Your task to perform on an android device: change the upload size in google photos Image 0: 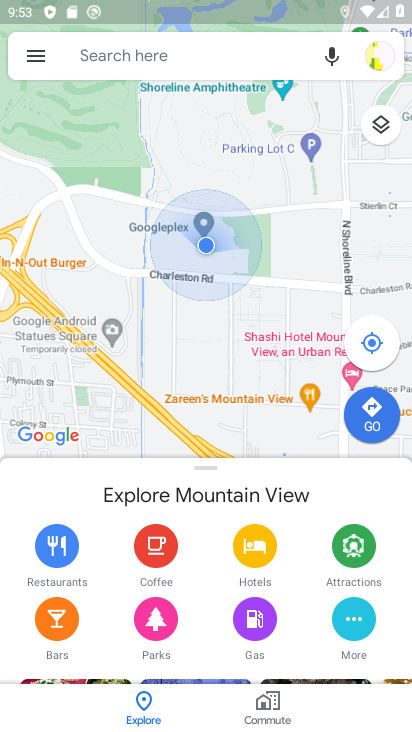
Step 0: press home button
Your task to perform on an android device: change the upload size in google photos Image 1: 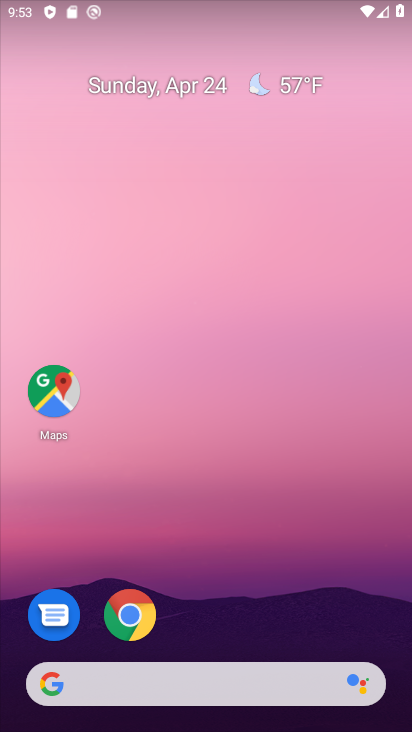
Step 1: drag from (344, 625) to (284, 4)
Your task to perform on an android device: change the upload size in google photos Image 2: 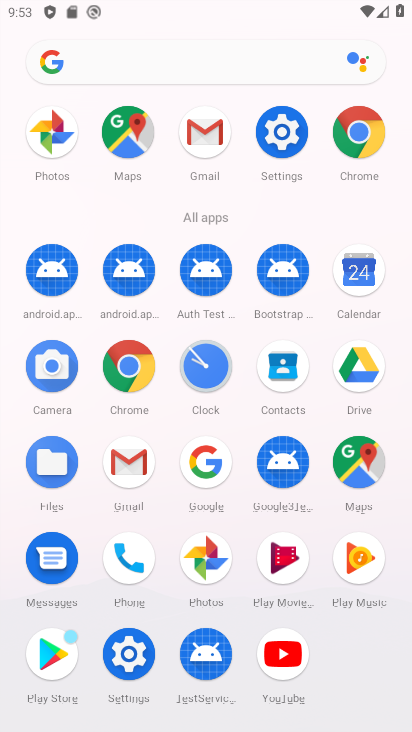
Step 2: click (204, 561)
Your task to perform on an android device: change the upload size in google photos Image 3: 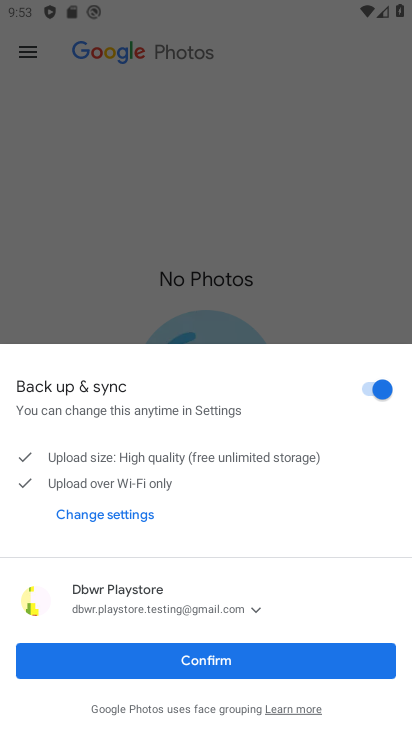
Step 3: click (202, 661)
Your task to perform on an android device: change the upload size in google photos Image 4: 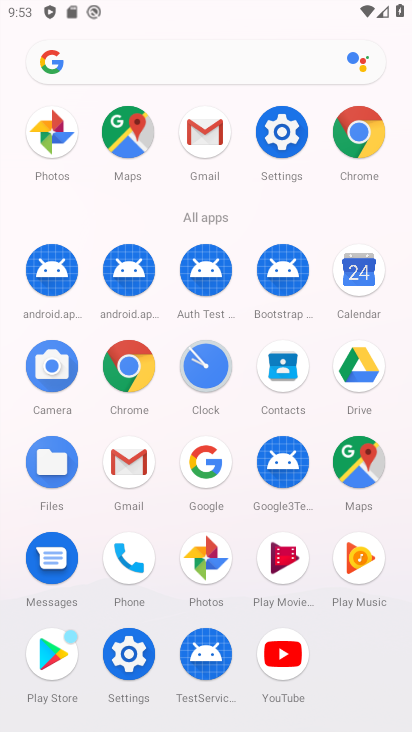
Step 4: click (205, 558)
Your task to perform on an android device: change the upload size in google photos Image 5: 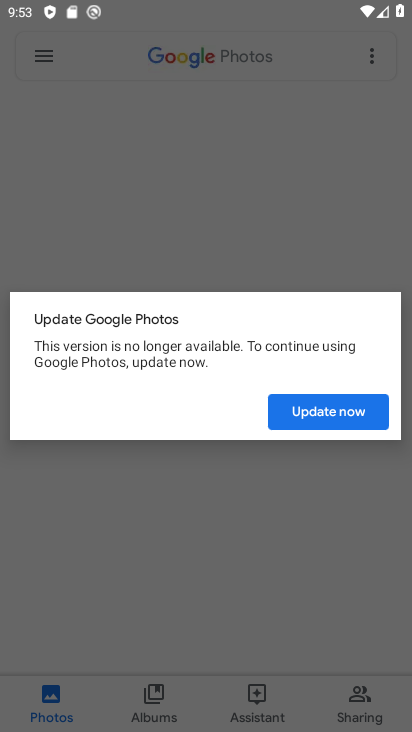
Step 5: click (330, 414)
Your task to perform on an android device: change the upload size in google photos Image 6: 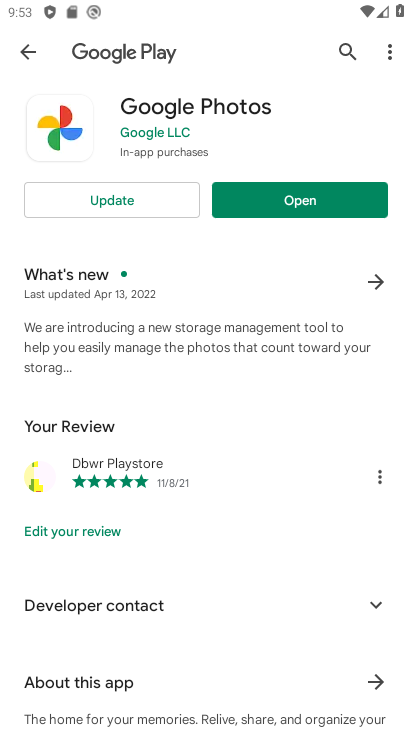
Step 6: click (106, 207)
Your task to perform on an android device: change the upload size in google photos Image 7: 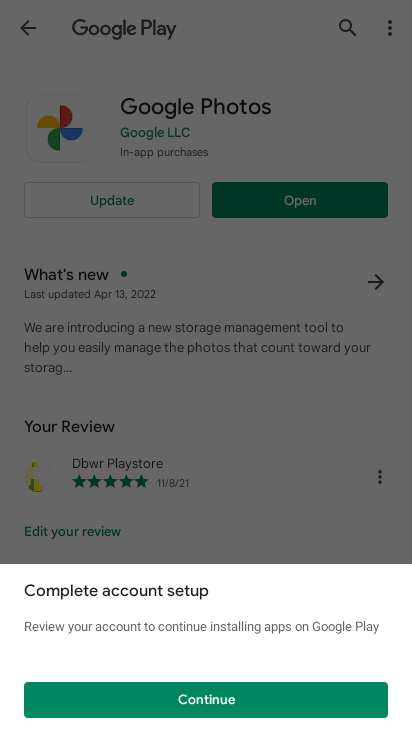
Step 7: click (296, 445)
Your task to perform on an android device: change the upload size in google photos Image 8: 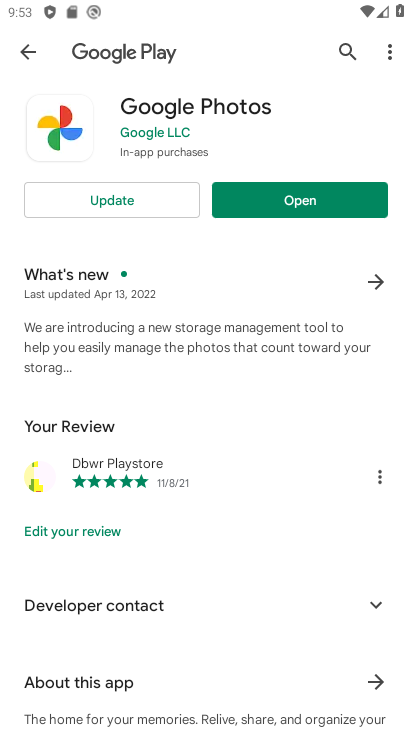
Step 8: task complete